Your task to perform on an android device: Clear the cart on costco.com. Search for logitech g pro on costco.com, select the first entry, and add it to the cart. Image 0: 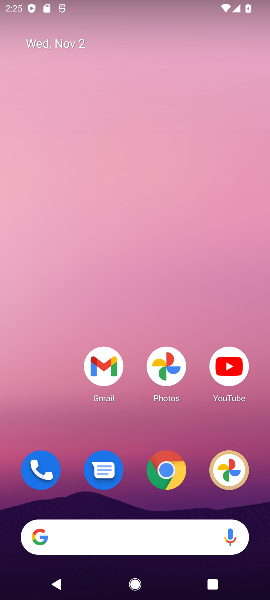
Step 0: drag from (127, 511) to (126, 156)
Your task to perform on an android device: Clear the cart on costco.com. Search for logitech g pro on costco.com, select the first entry, and add it to the cart. Image 1: 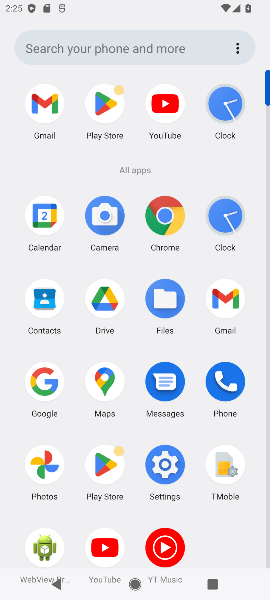
Step 1: click (46, 374)
Your task to perform on an android device: Clear the cart on costco.com. Search for logitech g pro on costco.com, select the first entry, and add it to the cart. Image 2: 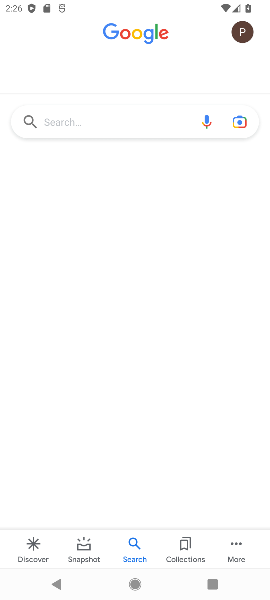
Step 2: click (101, 110)
Your task to perform on an android device: Clear the cart on costco.com. Search for logitech g pro on costco.com, select the first entry, and add it to the cart. Image 3: 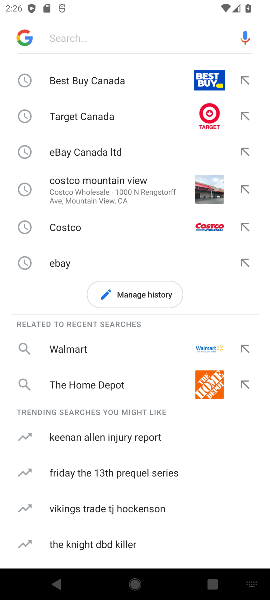
Step 3: type "costco "
Your task to perform on an android device: Clear the cart on costco.com. Search for logitech g pro on costco.com, select the first entry, and add it to the cart. Image 4: 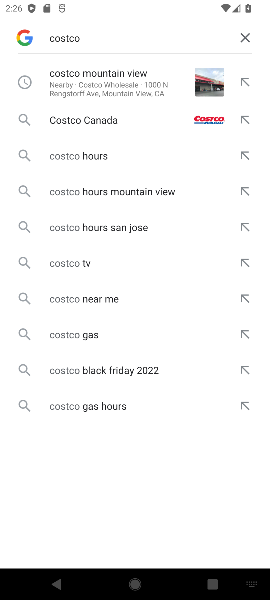
Step 4: click (75, 83)
Your task to perform on an android device: Clear the cart on costco.com. Search for logitech g pro on costco.com, select the first entry, and add it to the cart. Image 5: 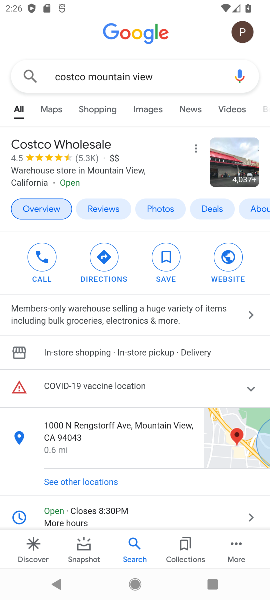
Step 5: click (37, 139)
Your task to perform on an android device: Clear the cart on costco.com. Search for logitech g pro on costco.com, select the first entry, and add it to the cart. Image 6: 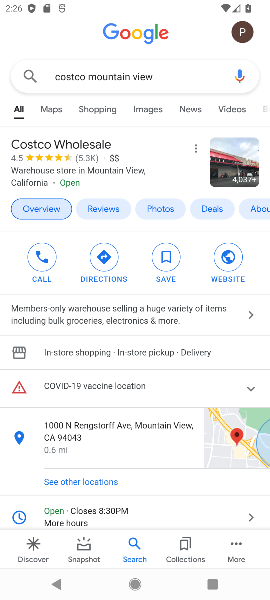
Step 6: click (46, 140)
Your task to perform on an android device: Clear the cart on costco.com. Search for logitech g pro on costco.com, select the first entry, and add it to the cart. Image 7: 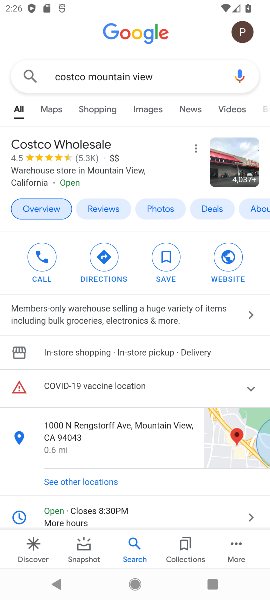
Step 7: drag from (120, 454) to (143, 157)
Your task to perform on an android device: Clear the cart on costco.com. Search for logitech g pro on costco.com, select the first entry, and add it to the cart. Image 8: 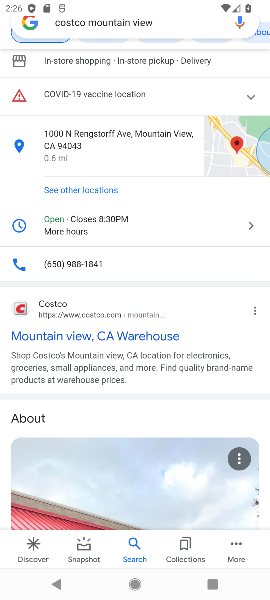
Step 8: click (20, 305)
Your task to perform on an android device: Clear the cart on costco.com. Search for logitech g pro on costco.com, select the first entry, and add it to the cart. Image 9: 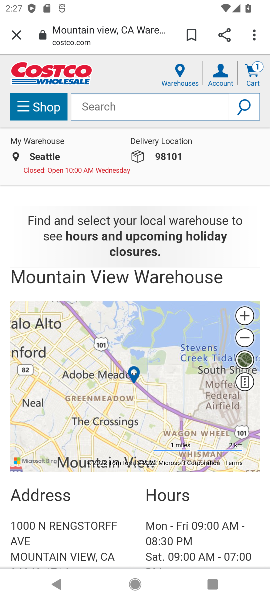
Step 9: click (100, 104)
Your task to perform on an android device: Clear the cart on costco.com. Search for logitech g pro on costco.com, select the first entry, and add it to the cart. Image 10: 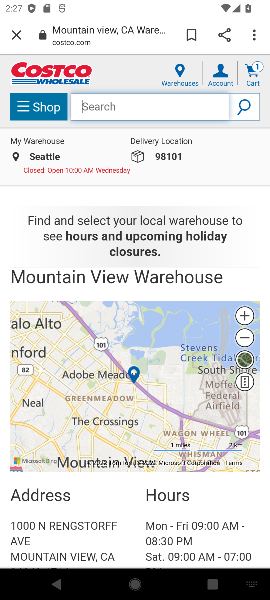
Step 10: type " logitech g pro "
Your task to perform on an android device: Clear the cart on costco.com. Search for logitech g pro on costco.com, select the first entry, and add it to the cart. Image 11: 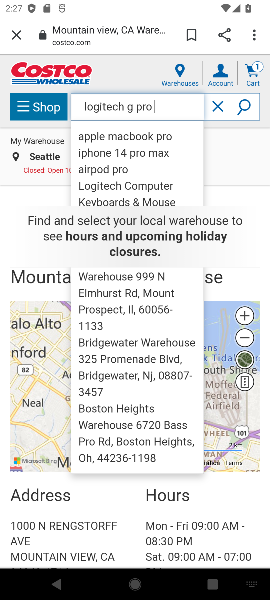
Step 11: click (121, 180)
Your task to perform on an android device: Clear the cart on costco.com. Search for logitech g pro on costco.com, select the first entry, and add it to the cart. Image 12: 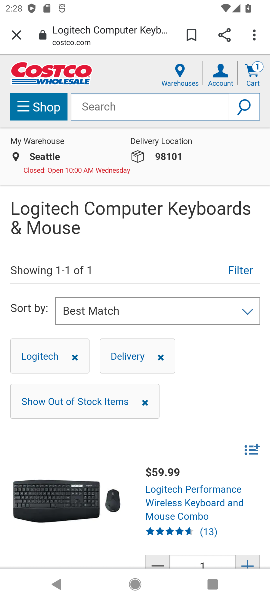
Step 12: click (164, 104)
Your task to perform on an android device: Clear the cart on costco.com. Search for logitech g pro on costco.com, select the first entry, and add it to the cart. Image 13: 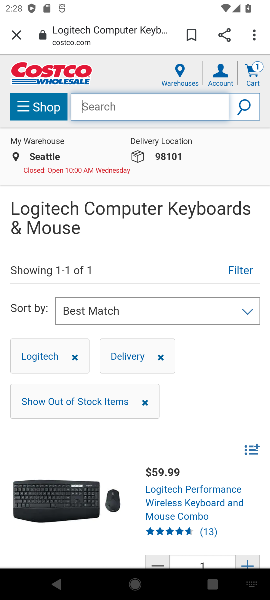
Step 13: type "logitech g pro  "
Your task to perform on an android device: Clear the cart on costco.com. Search for logitech g pro on costco.com, select the first entry, and add it to the cart. Image 14: 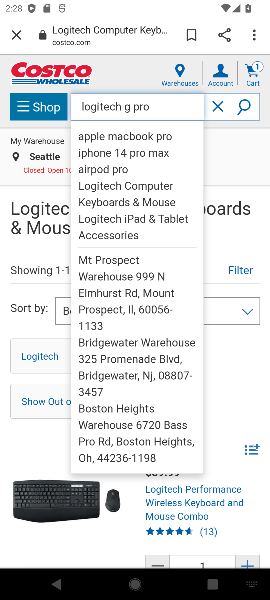
Step 14: drag from (148, 416) to (147, 164)
Your task to perform on an android device: Clear the cart on costco.com. Search for logitech g pro on costco.com, select the first entry, and add it to the cart. Image 15: 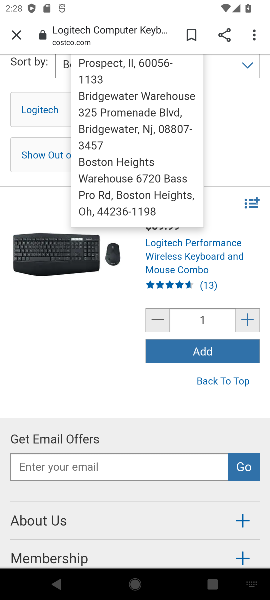
Step 15: click (79, 380)
Your task to perform on an android device: Clear the cart on costco.com. Search for logitech g pro on costco.com, select the first entry, and add it to the cart. Image 16: 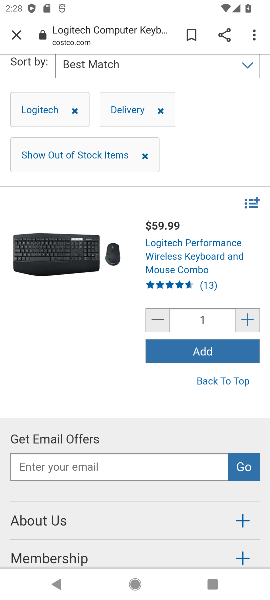
Step 16: drag from (20, 77) to (16, 433)
Your task to perform on an android device: Clear the cart on costco.com. Search for logitech g pro on costco.com, select the first entry, and add it to the cart. Image 17: 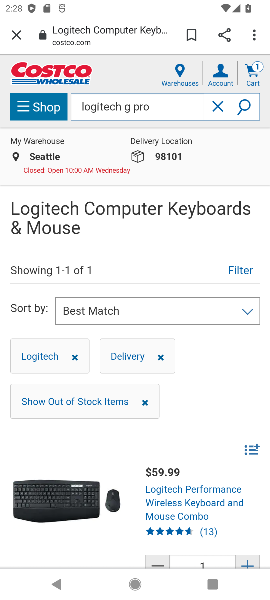
Step 17: click (245, 110)
Your task to perform on an android device: Clear the cart on costco.com. Search for logitech g pro on costco.com, select the first entry, and add it to the cart. Image 18: 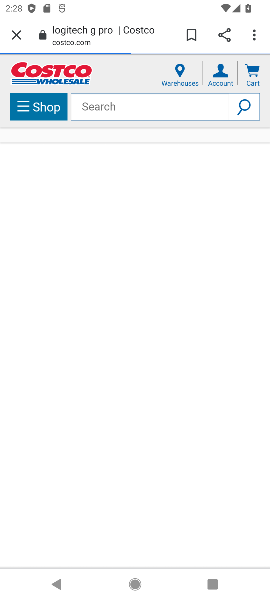
Step 18: click (245, 110)
Your task to perform on an android device: Clear the cart on costco.com. Search for logitech g pro on costco.com, select the first entry, and add it to the cart. Image 19: 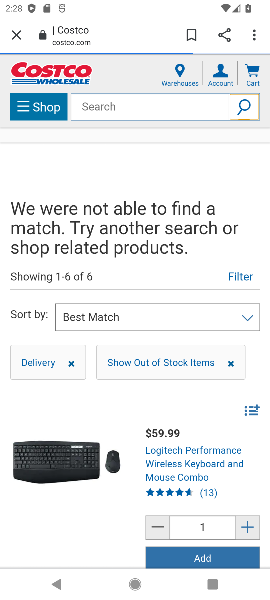
Step 19: task complete